Your task to perform on an android device: Add razer naga to the cart on walmart.com, then select checkout. Image 0: 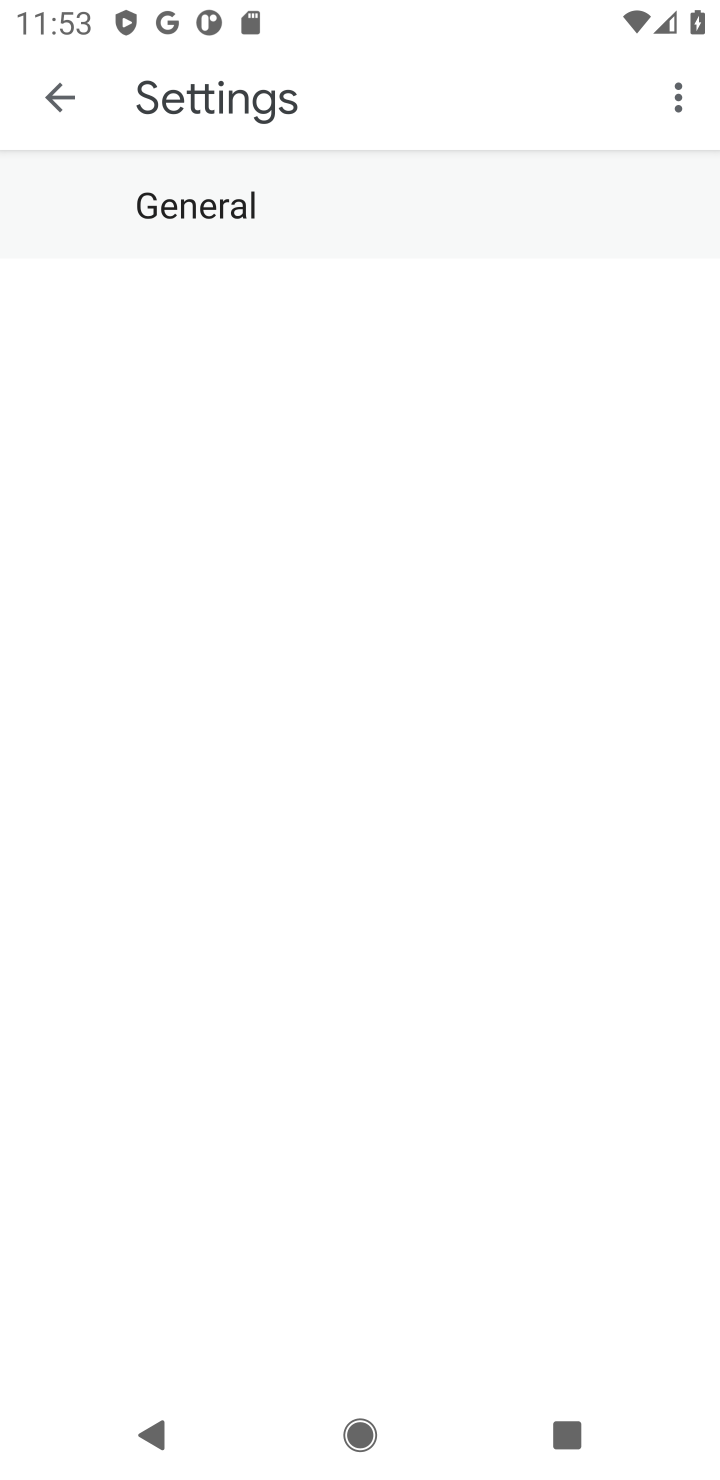
Step 0: press home button
Your task to perform on an android device: Add razer naga to the cart on walmart.com, then select checkout. Image 1: 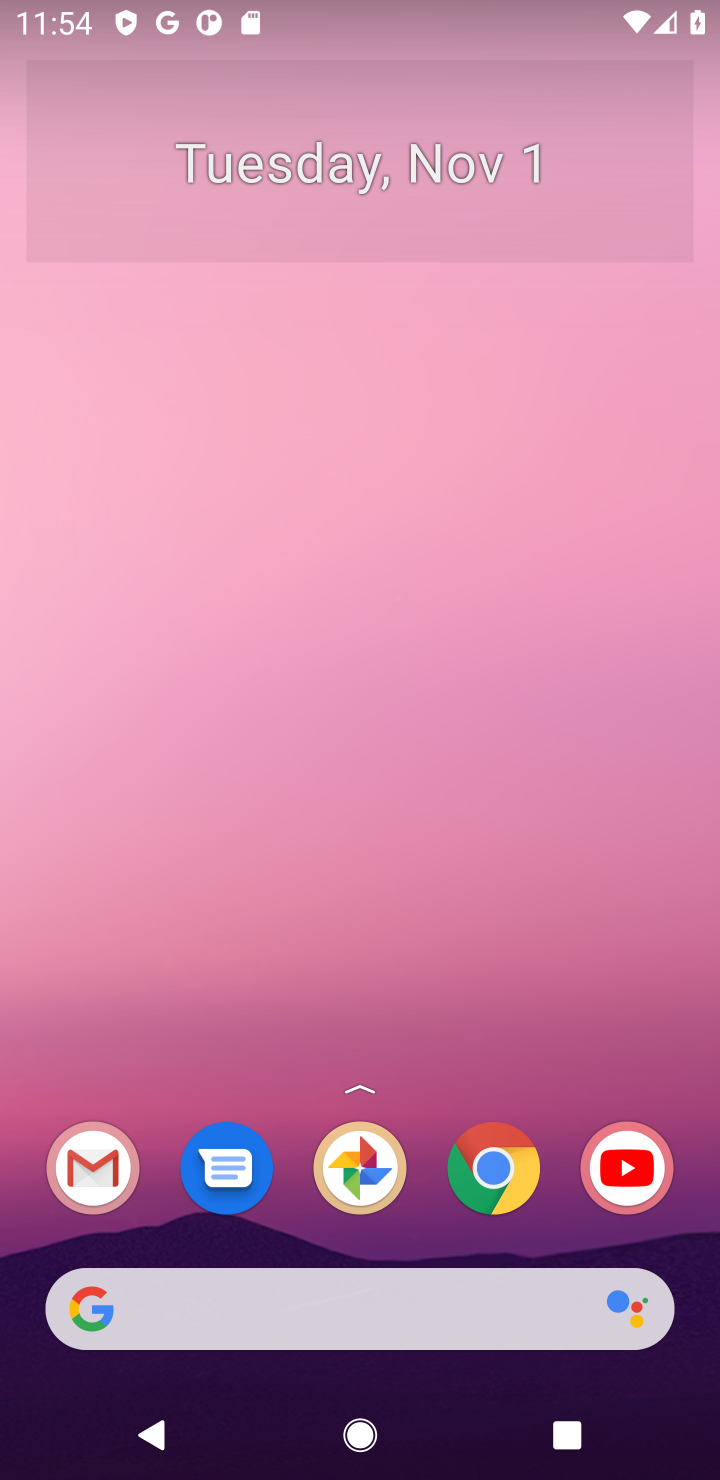
Step 1: click (496, 1169)
Your task to perform on an android device: Add razer naga to the cart on walmart.com, then select checkout. Image 2: 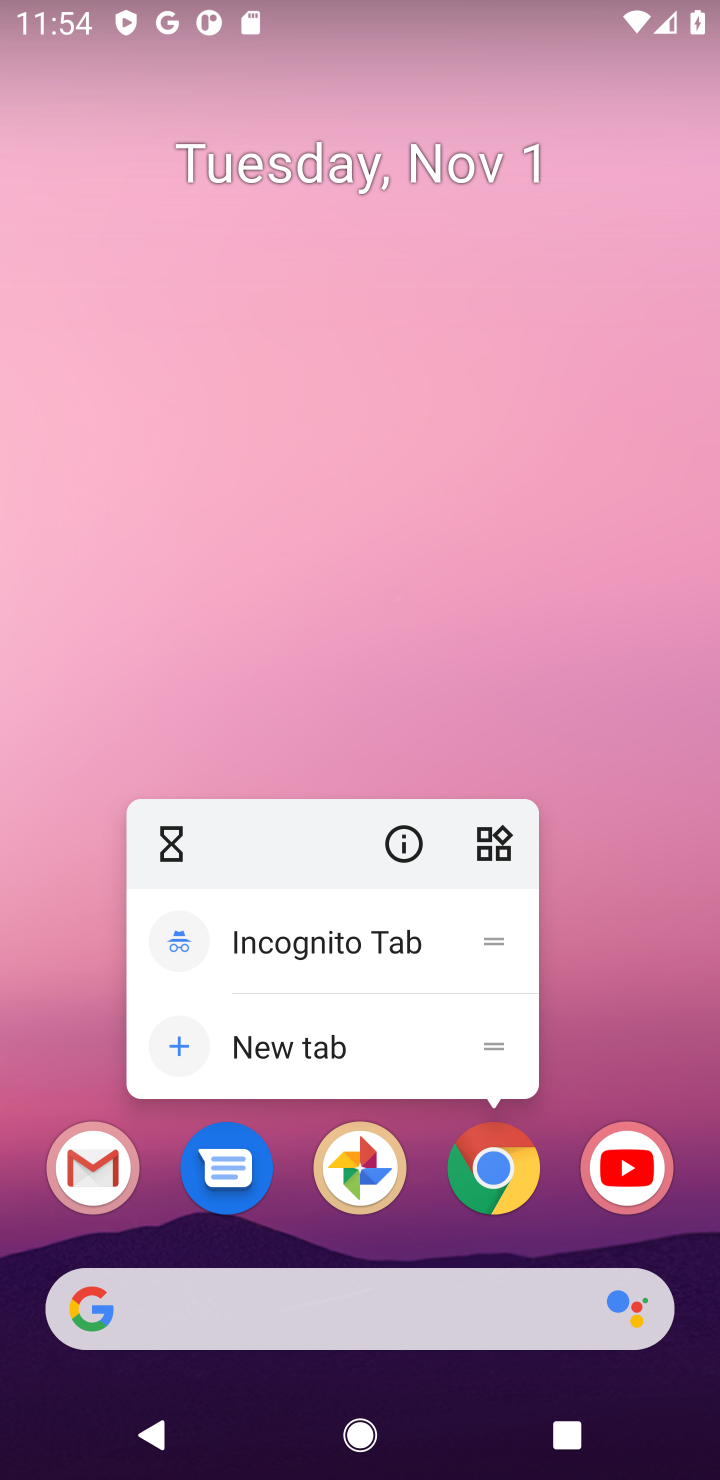
Step 2: click (501, 1168)
Your task to perform on an android device: Add razer naga to the cart on walmart.com, then select checkout. Image 3: 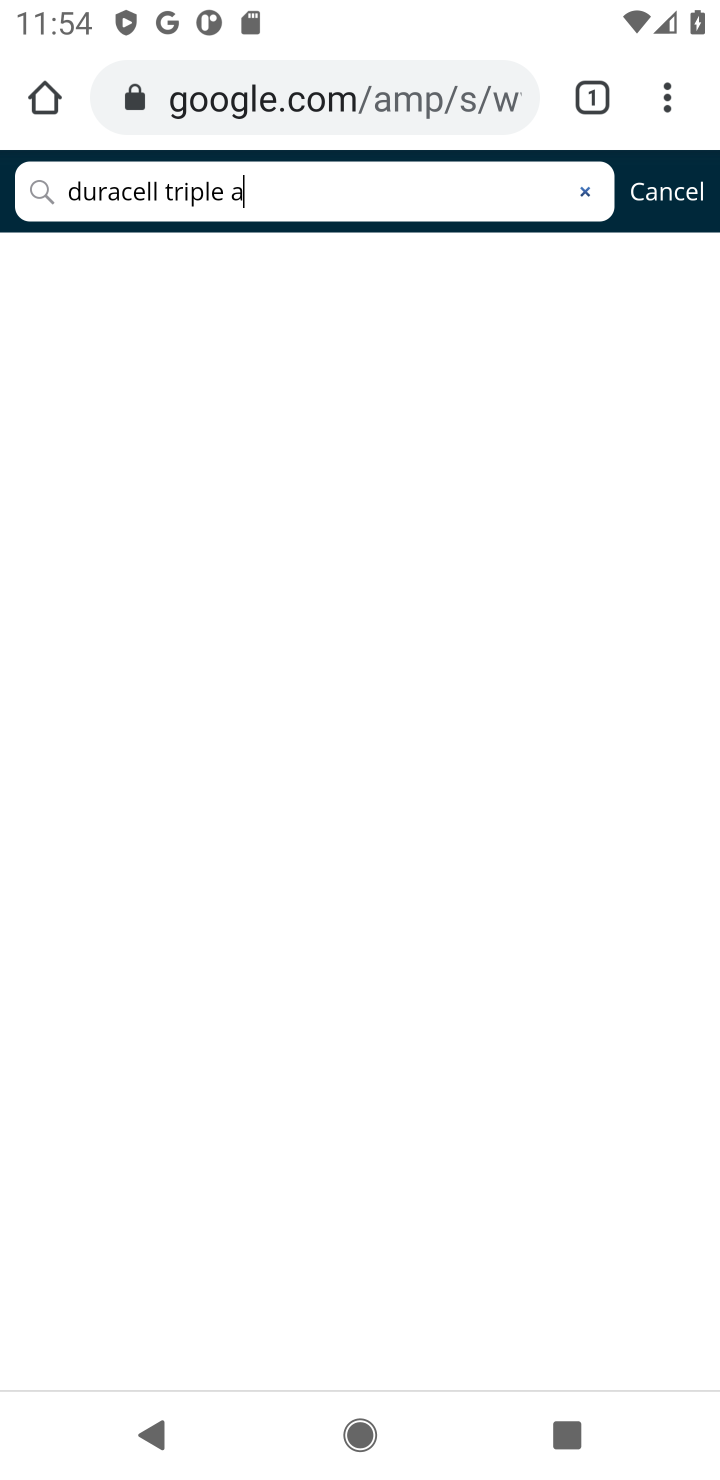
Step 3: click (458, 113)
Your task to perform on an android device: Add razer naga to the cart on walmart.com, then select checkout. Image 4: 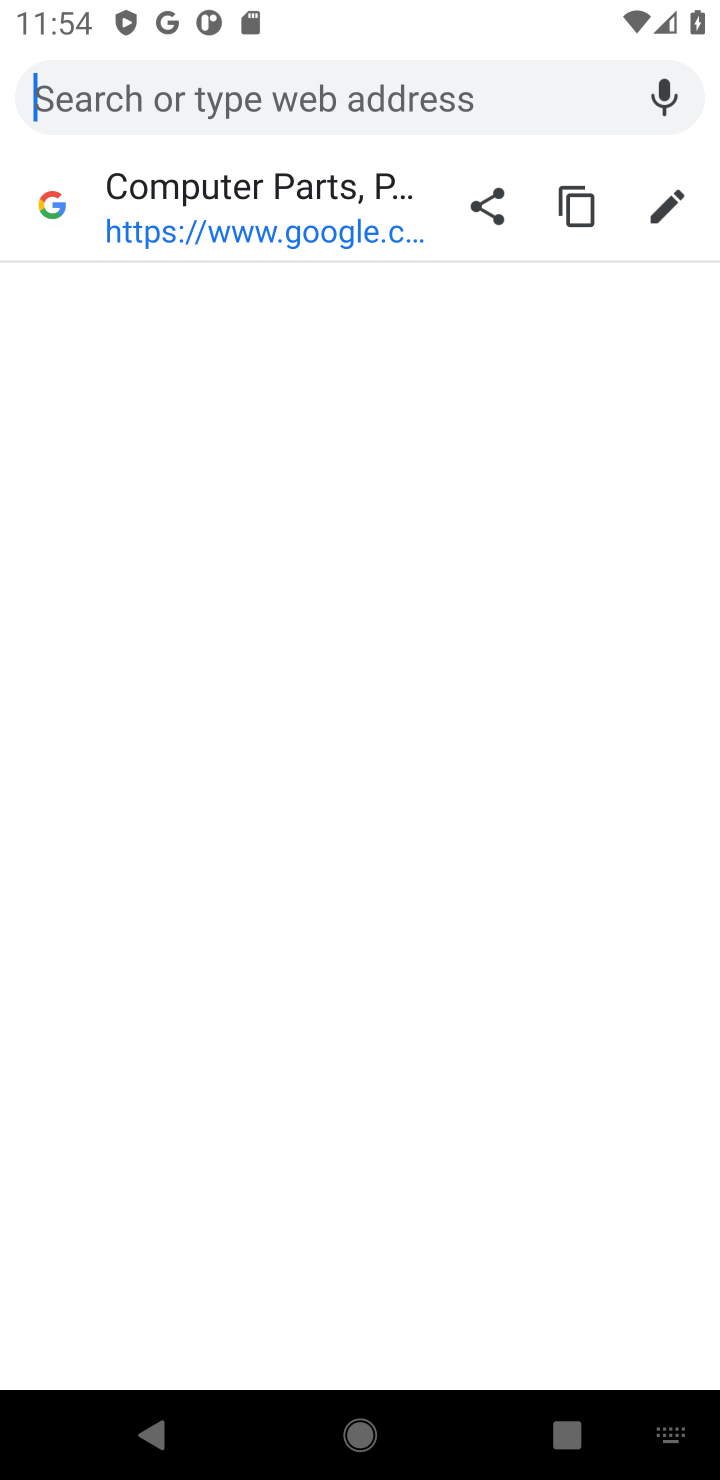
Step 4: type "walmart.com"
Your task to perform on an android device: Add razer naga to the cart on walmart.com, then select checkout. Image 5: 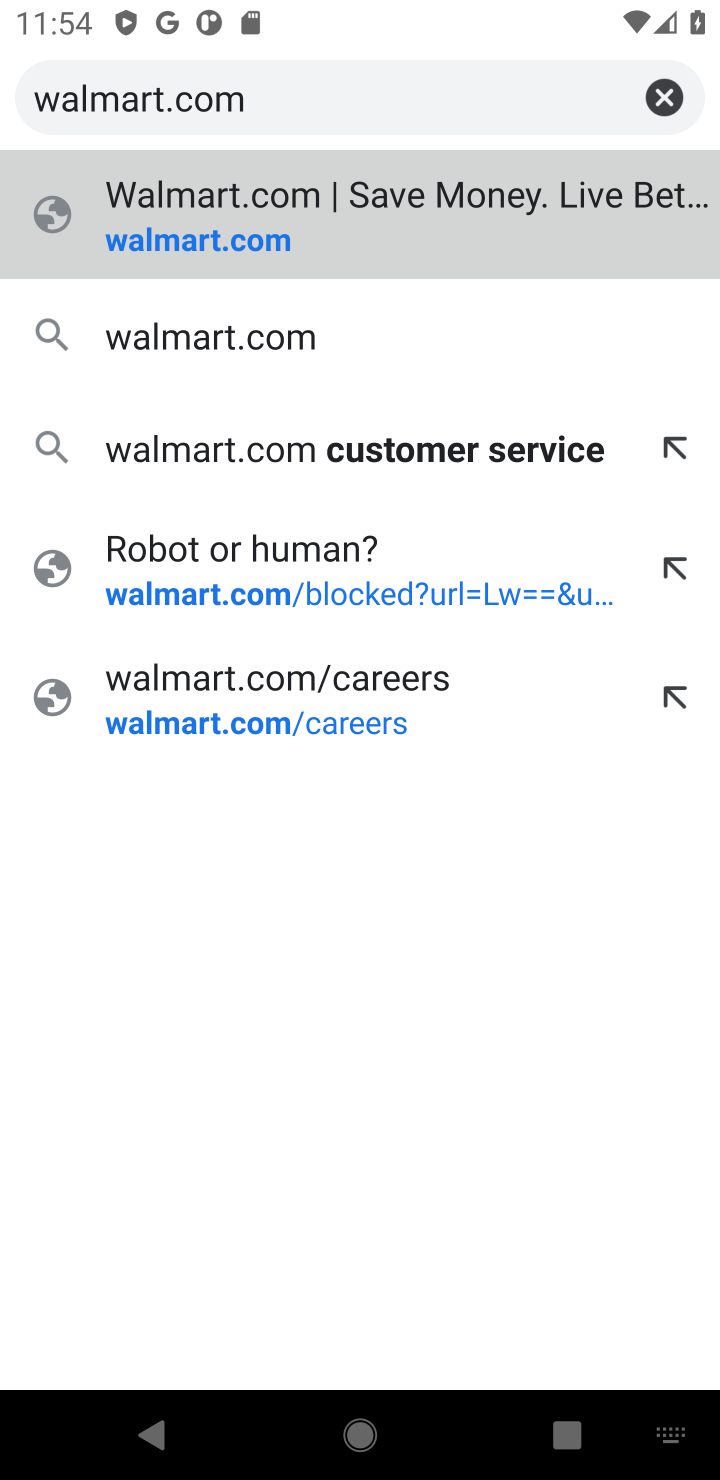
Step 5: click (214, 329)
Your task to perform on an android device: Add razer naga to the cart on walmart.com, then select checkout. Image 6: 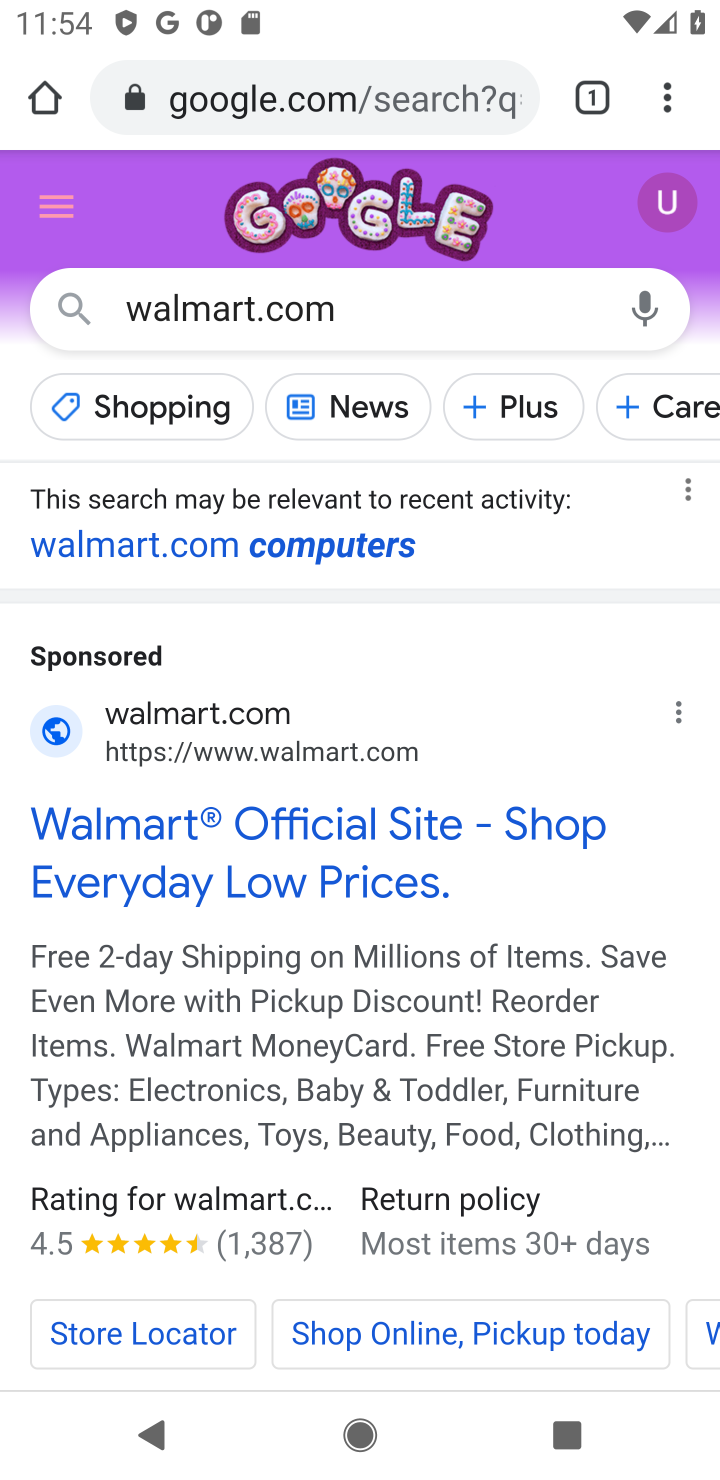
Step 6: drag from (518, 1279) to (519, 631)
Your task to perform on an android device: Add razer naga to the cart on walmart.com, then select checkout. Image 7: 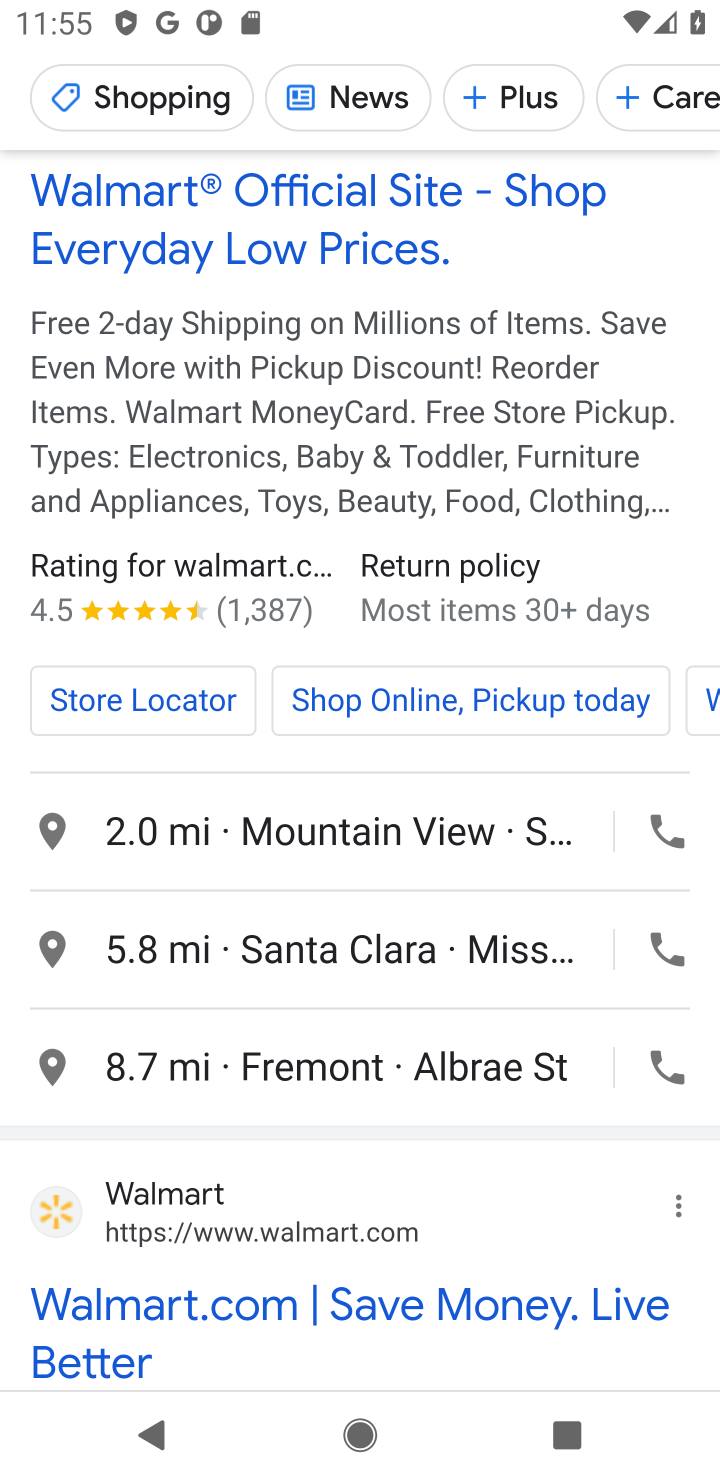
Step 7: click (430, 1312)
Your task to perform on an android device: Add razer naga to the cart on walmart.com, then select checkout. Image 8: 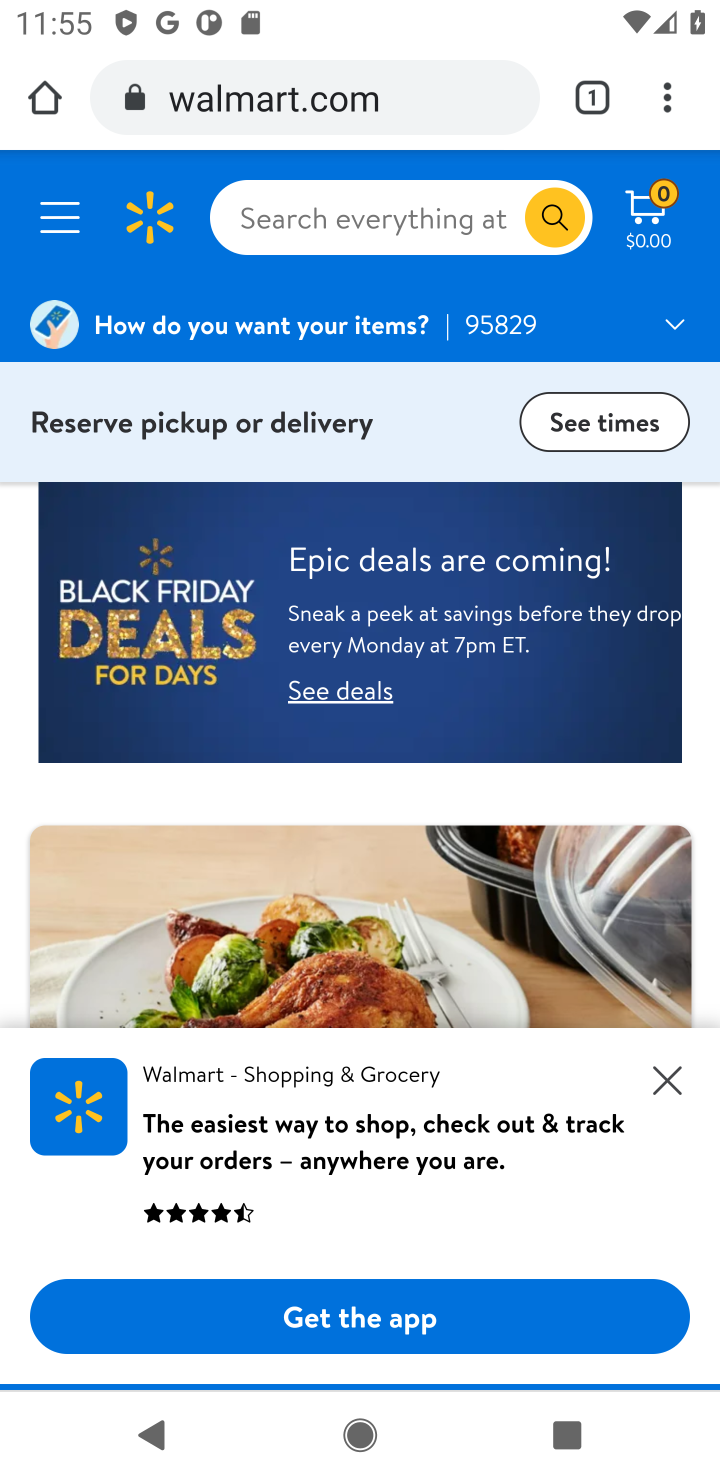
Step 8: click (367, 213)
Your task to perform on an android device: Add razer naga to the cart on walmart.com, then select checkout. Image 9: 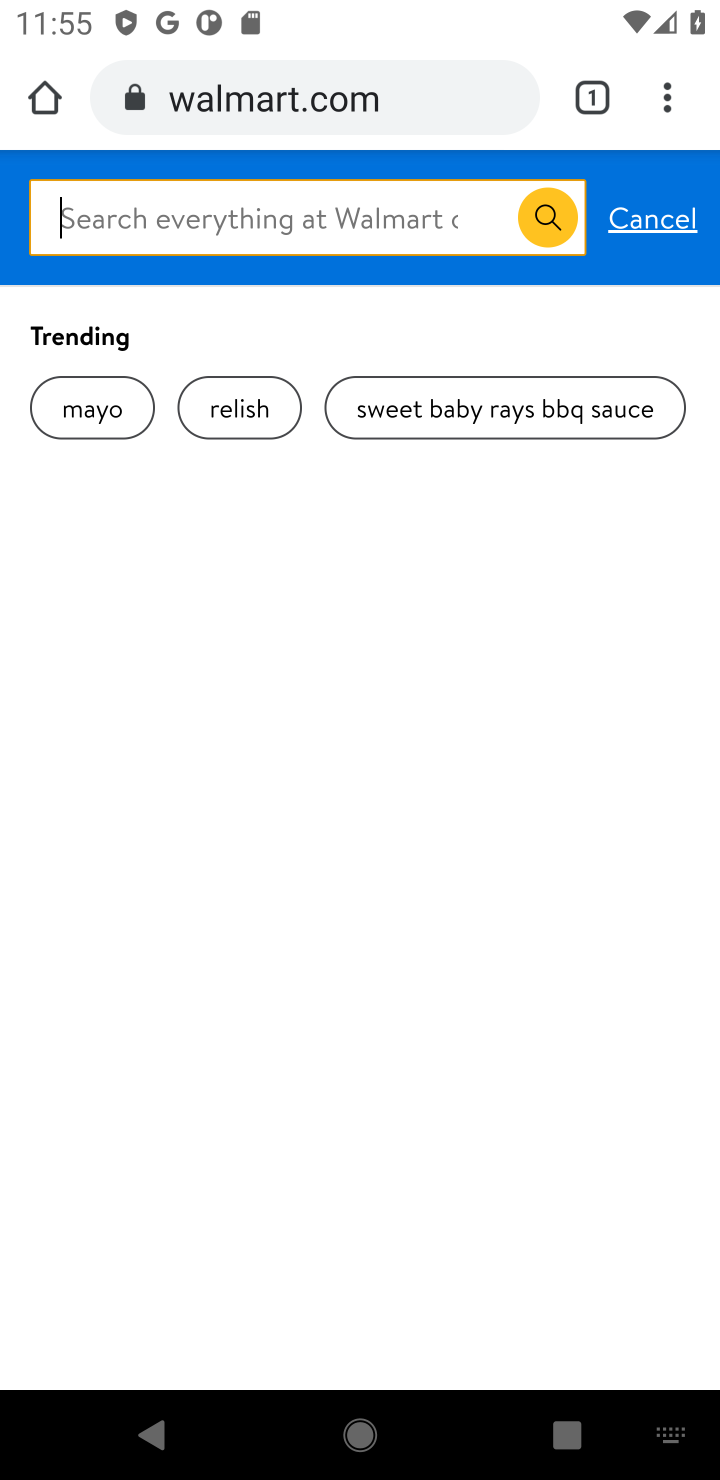
Step 9: type "razer naga"
Your task to perform on an android device: Add razer naga to the cart on walmart.com, then select checkout. Image 10: 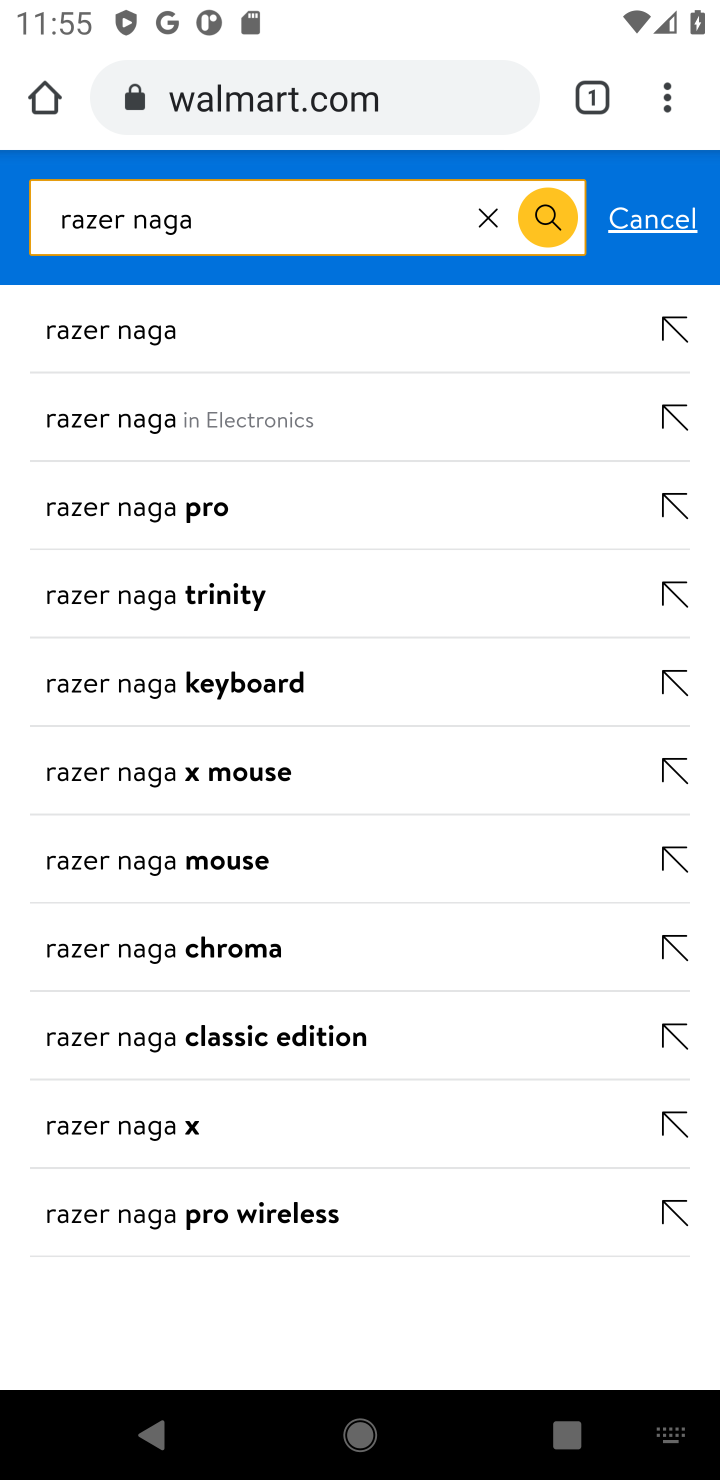
Step 10: click (141, 333)
Your task to perform on an android device: Add razer naga to the cart on walmart.com, then select checkout. Image 11: 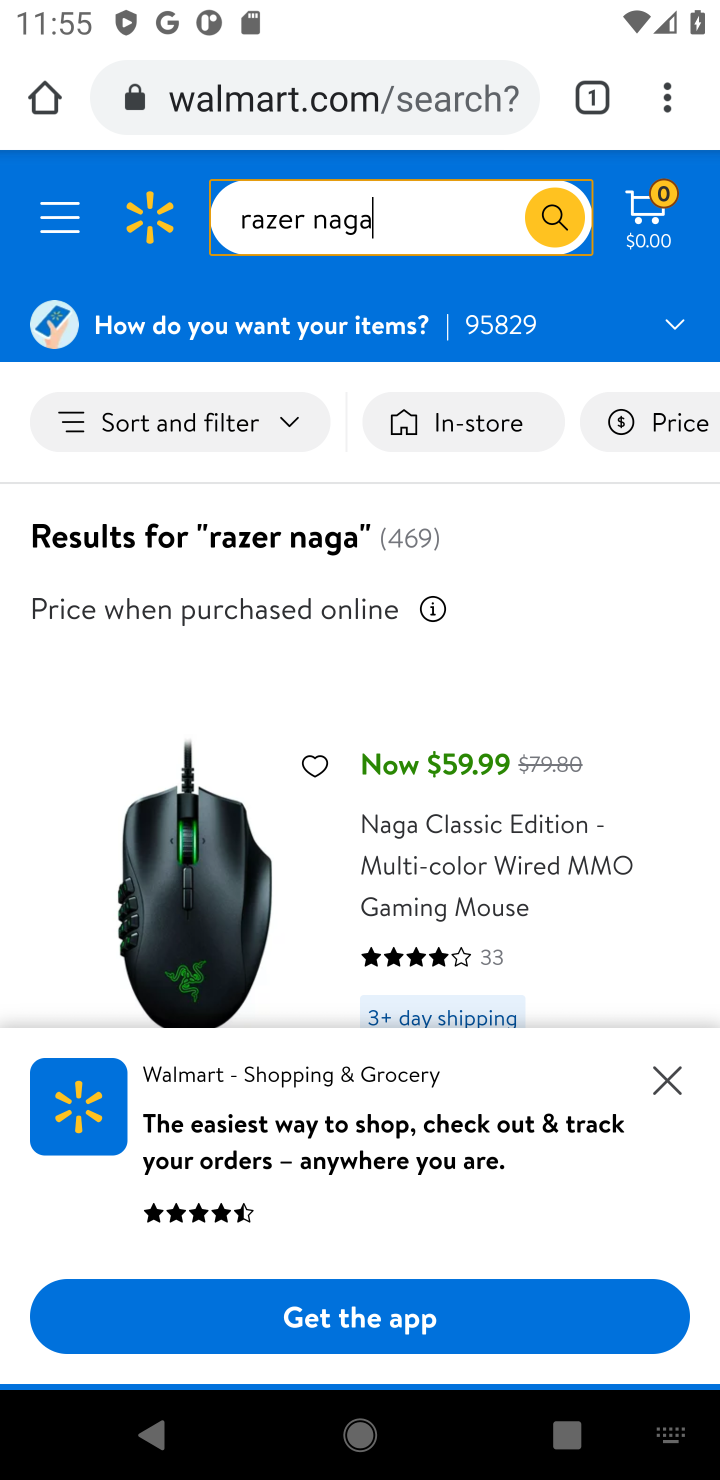
Step 11: click (666, 1081)
Your task to perform on an android device: Add razer naga to the cart on walmart.com, then select checkout. Image 12: 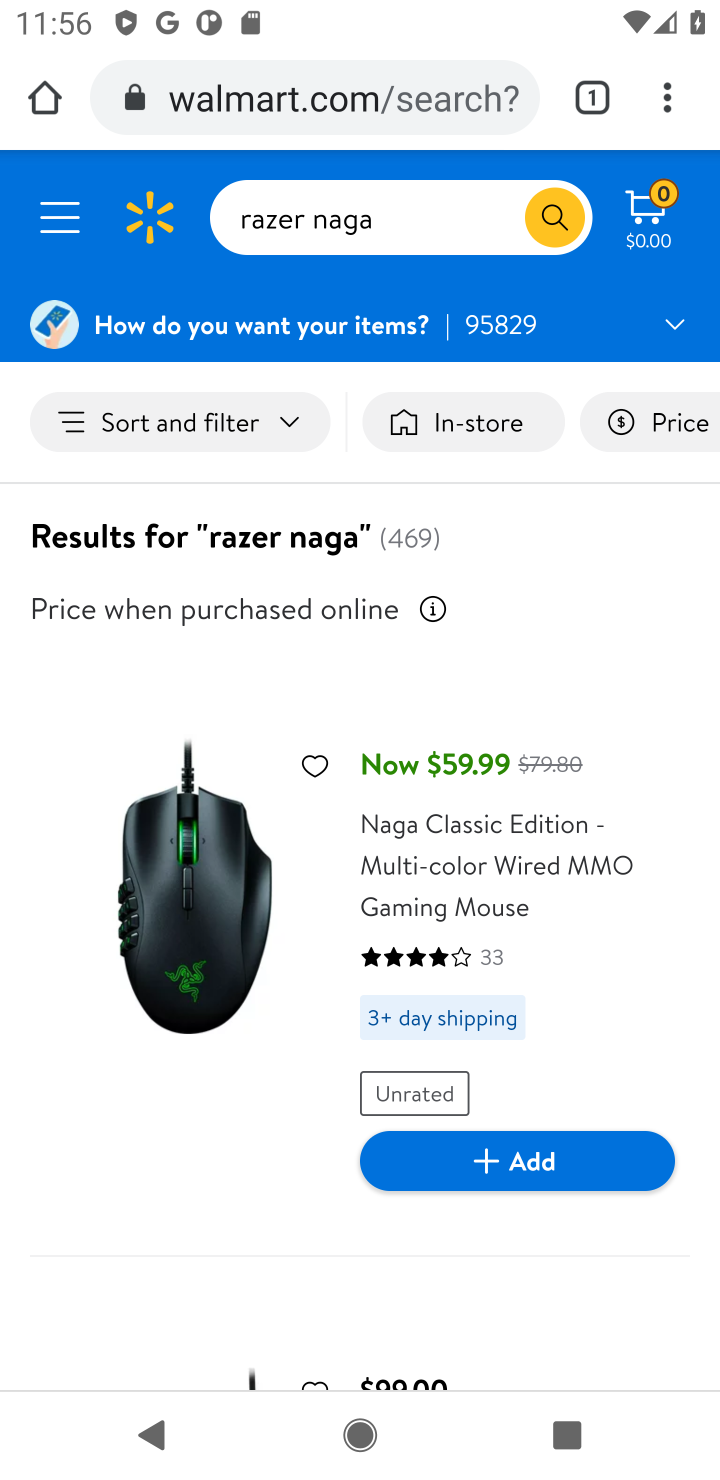
Step 12: click (511, 1158)
Your task to perform on an android device: Add razer naga to the cart on walmart.com, then select checkout. Image 13: 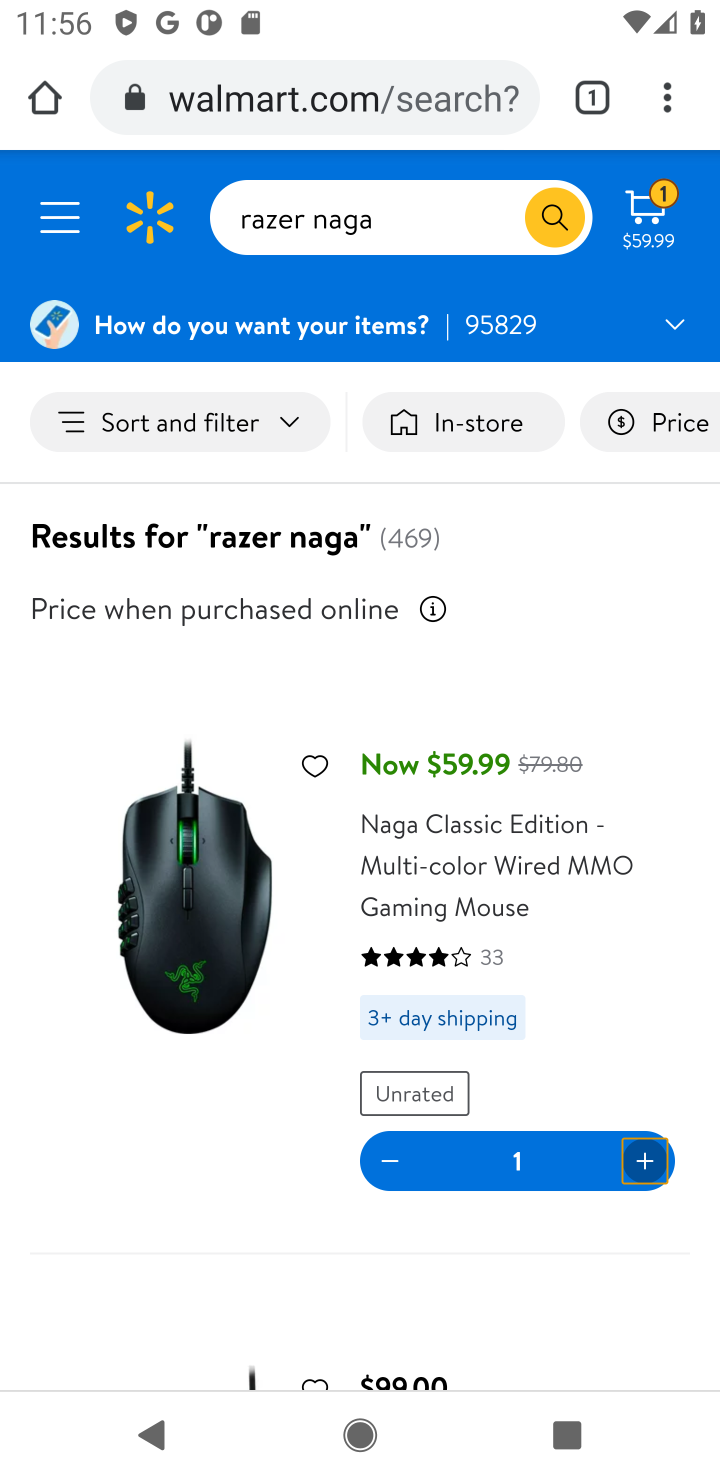
Step 13: click (648, 204)
Your task to perform on an android device: Add razer naga to the cart on walmart.com, then select checkout. Image 14: 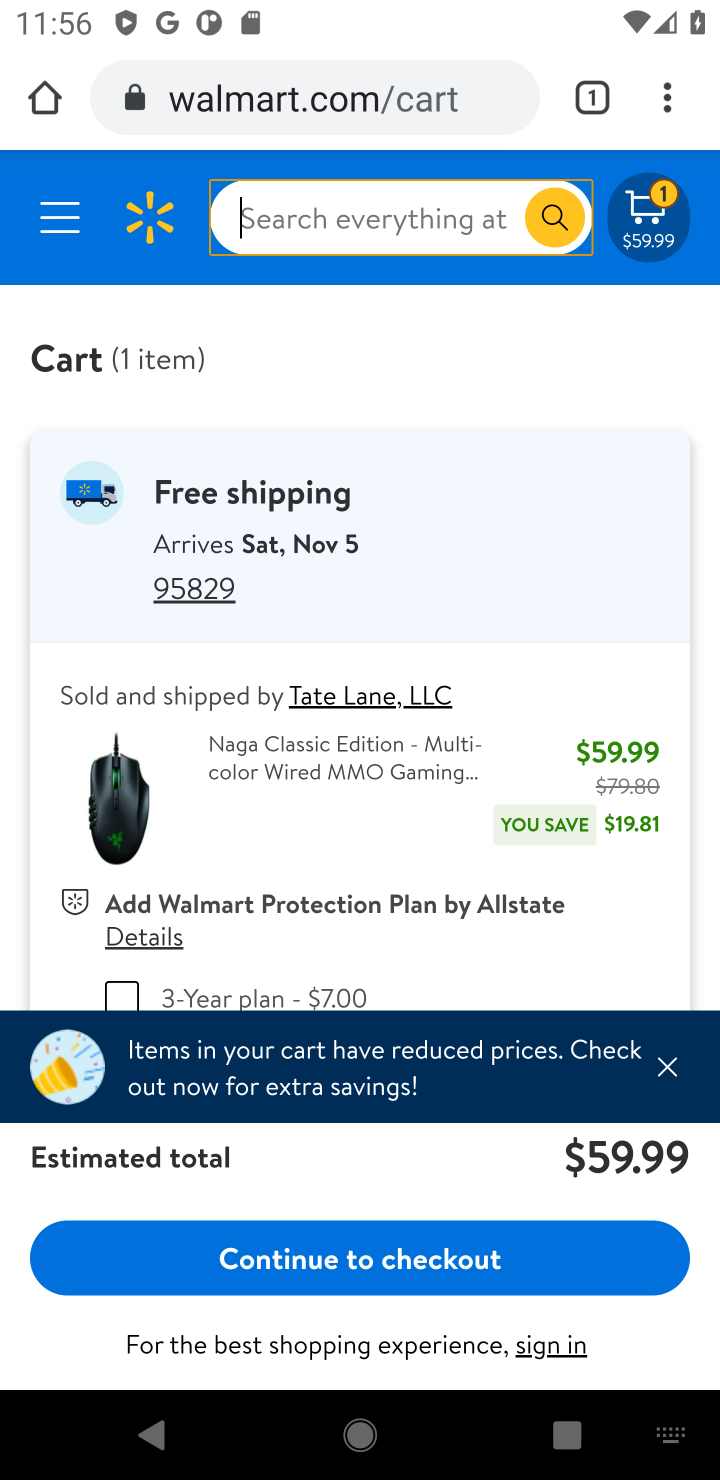
Step 14: click (411, 1266)
Your task to perform on an android device: Add razer naga to the cart on walmart.com, then select checkout. Image 15: 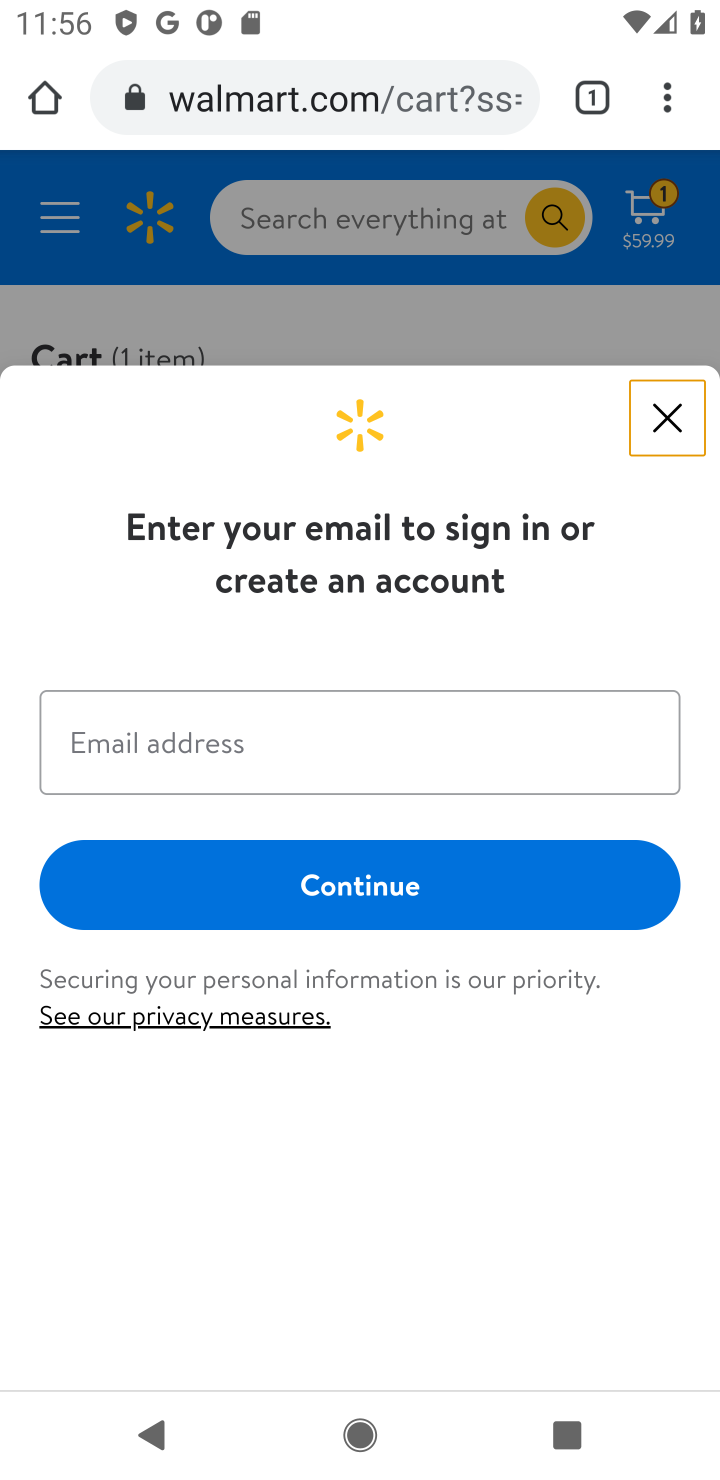
Step 15: task complete